Your task to perform on an android device: Do I have any events this weekend? Image 0: 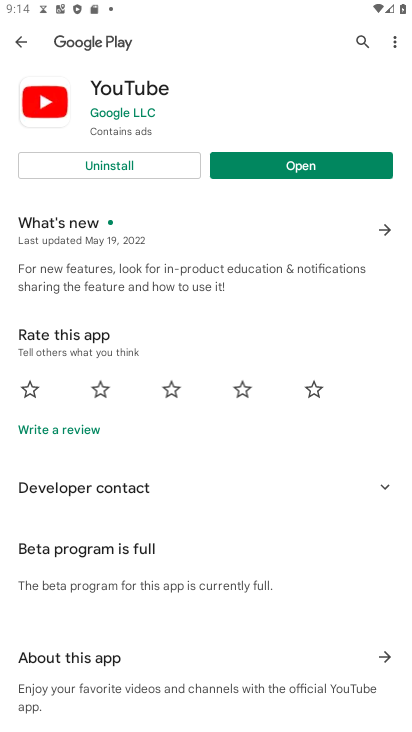
Step 0: press home button
Your task to perform on an android device: Do I have any events this weekend? Image 1: 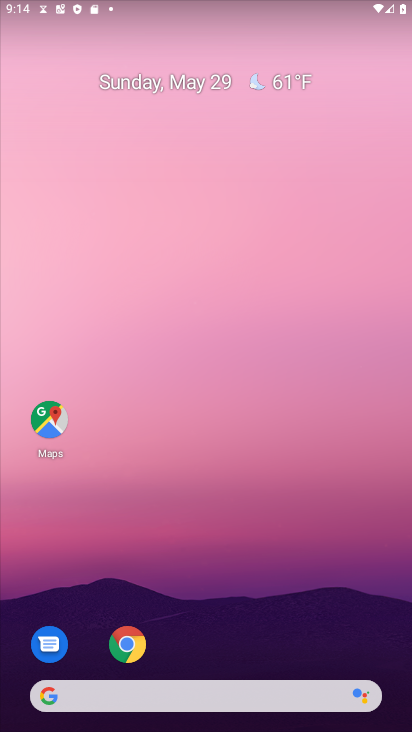
Step 1: drag from (255, 682) to (230, 318)
Your task to perform on an android device: Do I have any events this weekend? Image 2: 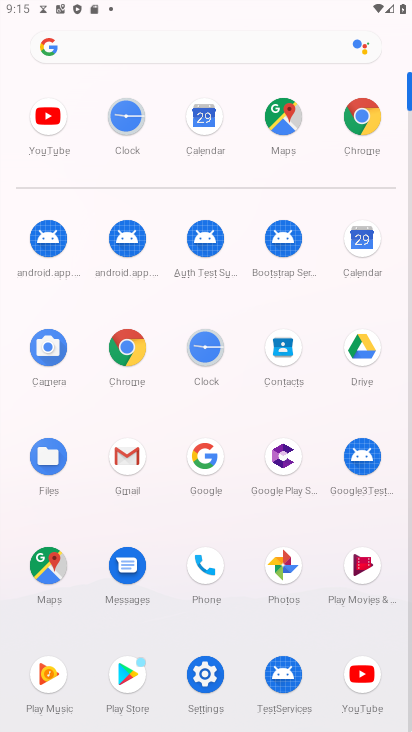
Step 2: click (352, 268)
Your task to perform on an android device: Do I have any events this weekend? Image 3: 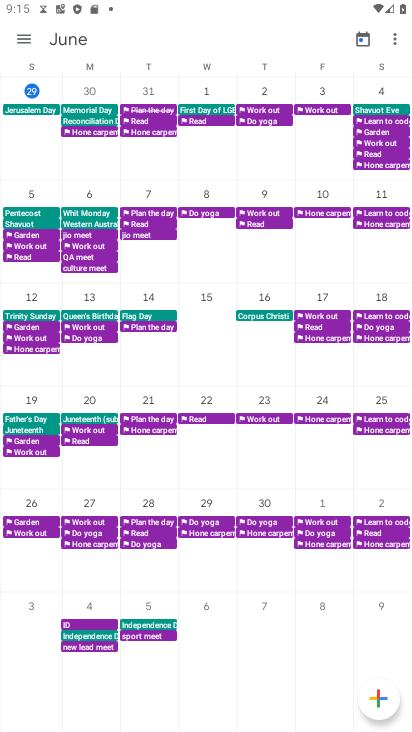
Step 3: click (24, 37)
Your task to perform on an android device: Do I have any events this weekend? Image 4: 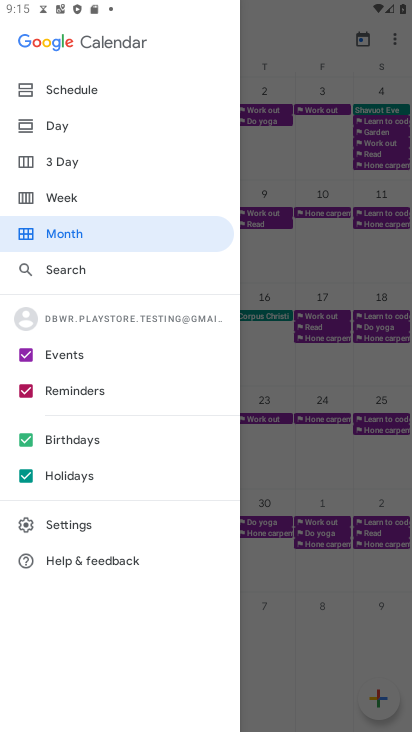
Step 4: click (63, 205)
Your task to perform on an android device: Do I have any events this weekend? Image 5: 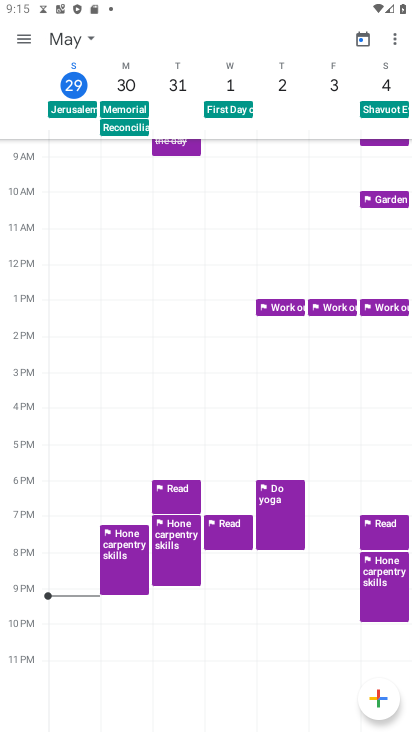
Step 5: task complete